Your task to perform on an android device: Open Google Chrome Image 0: 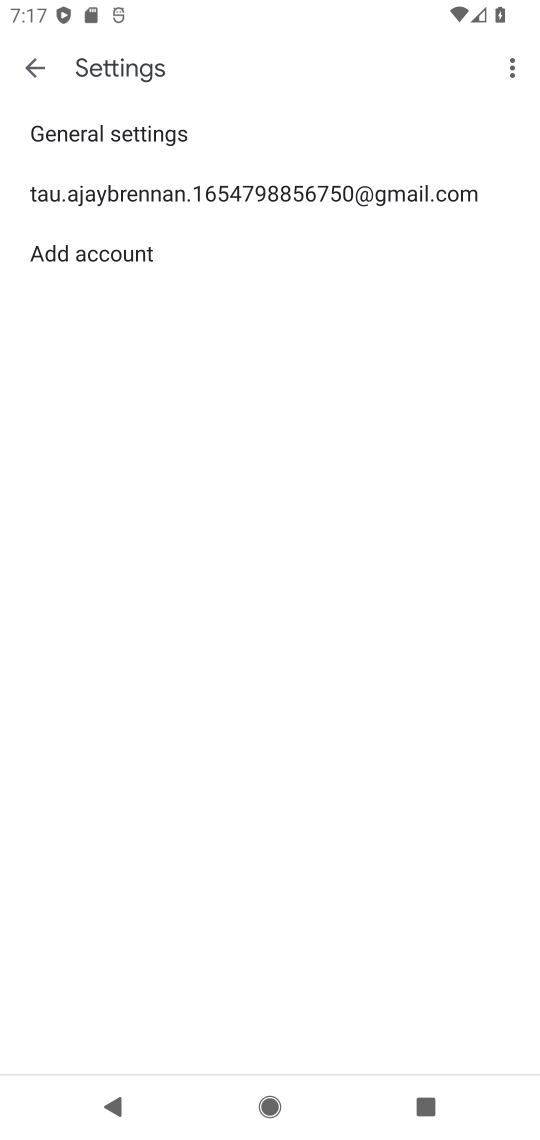
Step 0: press home button
Your task to perform on an android device: Open Google Chrome Image 1: 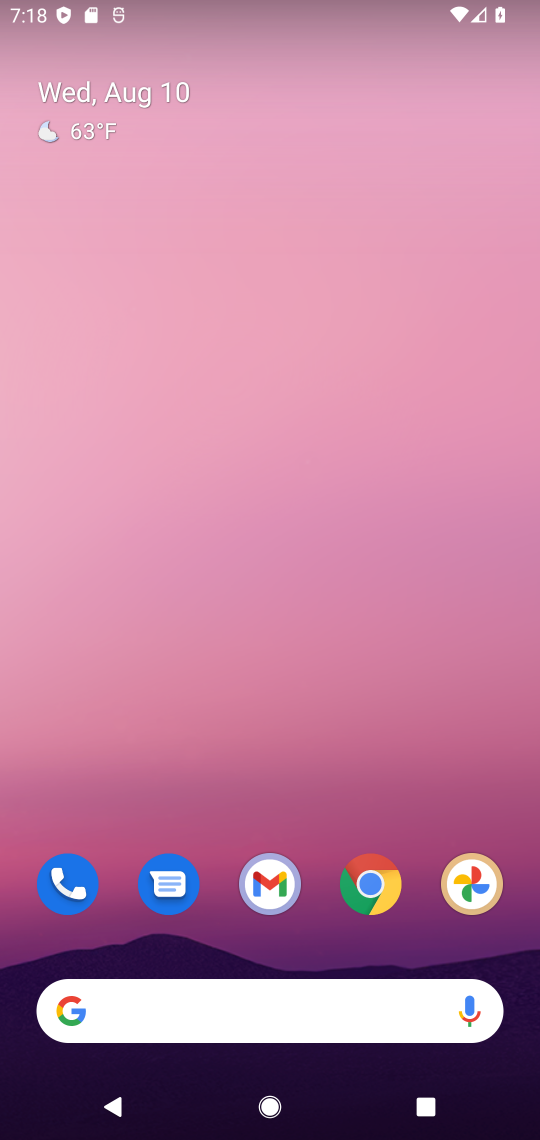
Step 1: click (358, 890)
Your task to perform on an android device: Open Google Chrome Image 2: 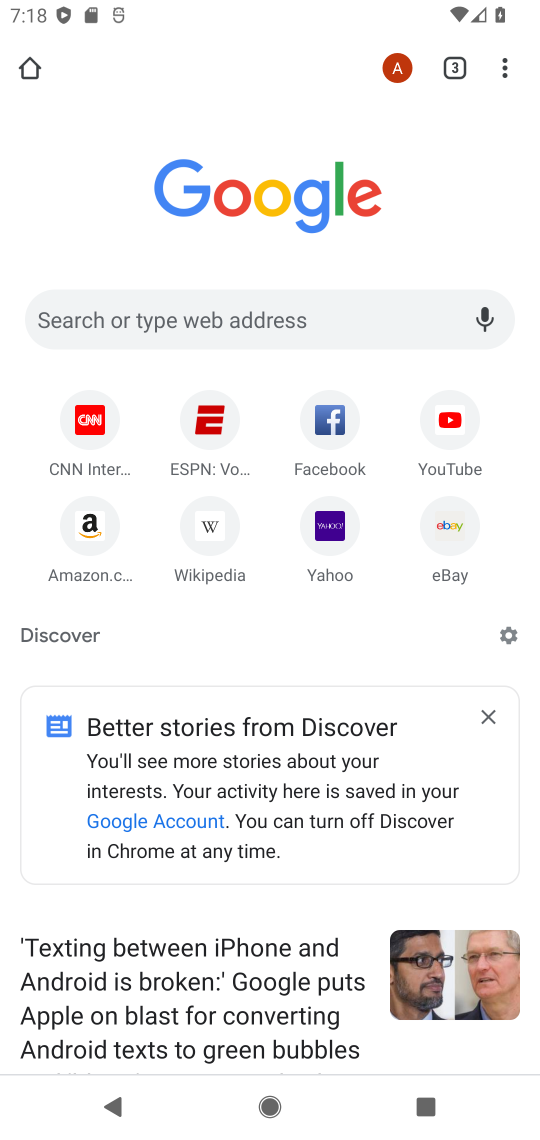
Step 2: task complete